Your task to perform on an android device: Open Google Chrome and click the shortcut for Amazon.com Image 0: 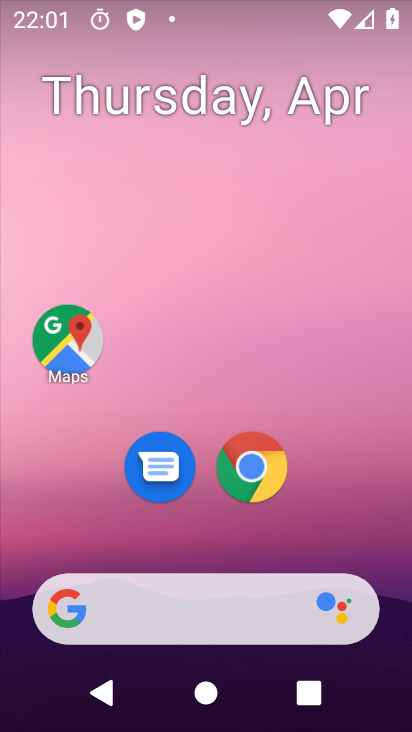
Step 0: drag from (237, 540) to (26, 183)
Your task to perform on an android device: Open Google Chrome and click the shortcut for Amazon.com Image 1: 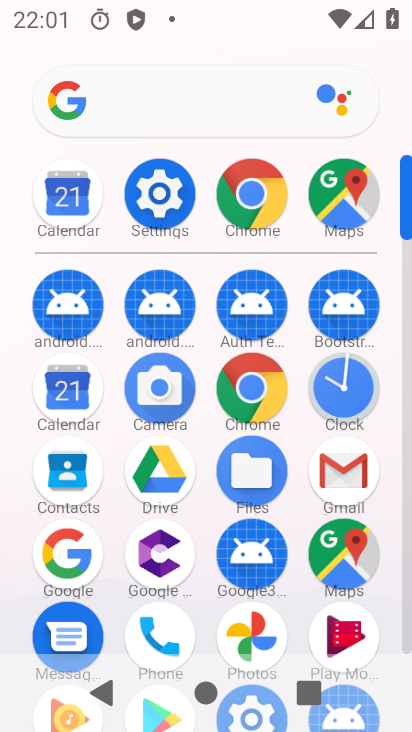
Step 1: click (243, 371)
Your task to perform on an android device: Open Google Chrome and click the shortcut for Amazon.com Image 2: 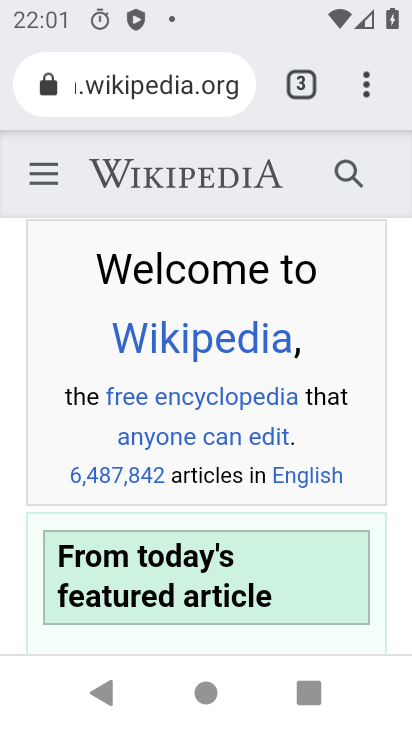
Step 2: click (306, 94)
Your task to perform on an android device: Open Google Chrome and click the shortcut for Amazon.com Image 3: 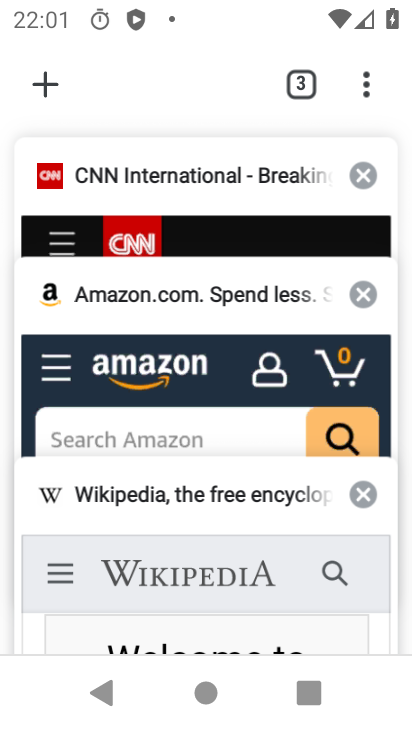
Step 3: click (33, 77)
Your task to perform on an android device: Open Google Chrome and click the shortcut for Amazon.com Image 4: 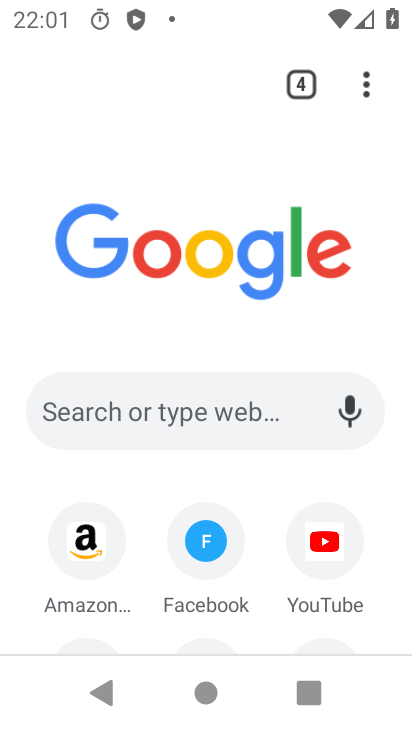
Step 4: click (113, 526)
Your task to perform on an android device: Open Google Chrome and click the shortcut for Amazon.com Image 5: 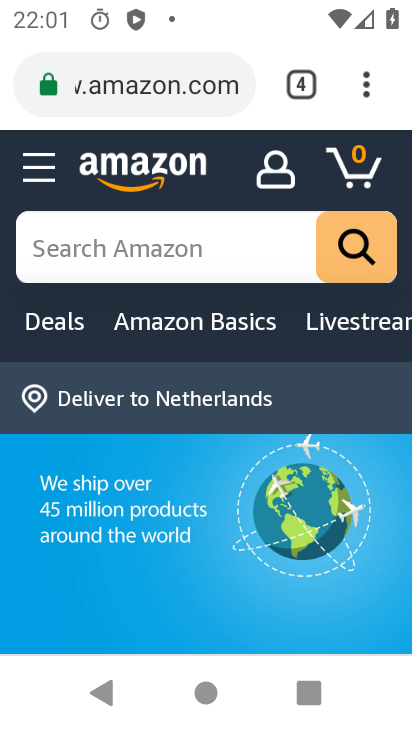
Step 5: task complete